Your task to perform on an android device: open sync settings in chrome Image 0: 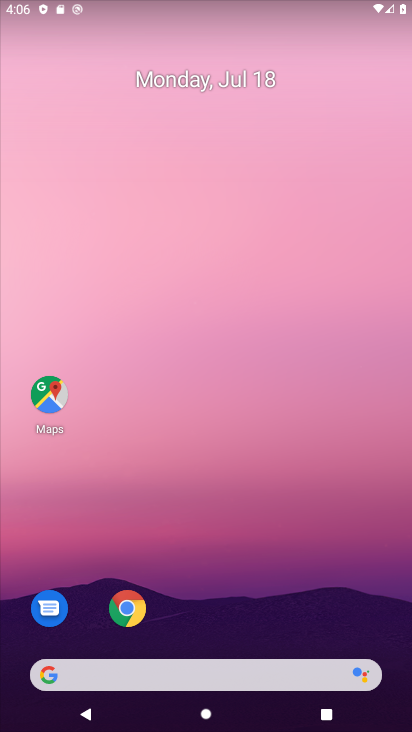
Step 0: drag from (251, 593) to (133, 96)
Your task to perform on an android device: open sync settings in chrome Image 1: 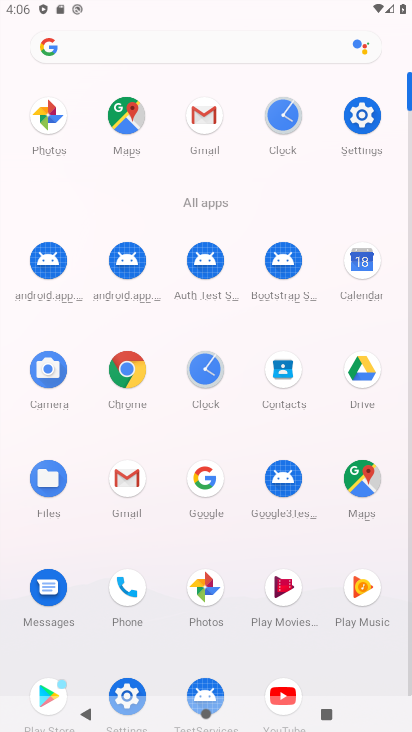
Step 1: click (121, 367)
Your task to perform on an android device: open sync settings in chrome Image 2: 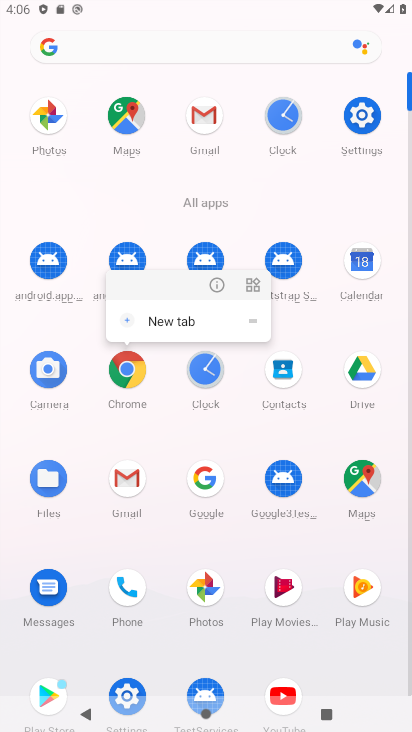
Step 2: click (127, 367)
Your task to perform on an android device: open sync settings in chrome Image 3: 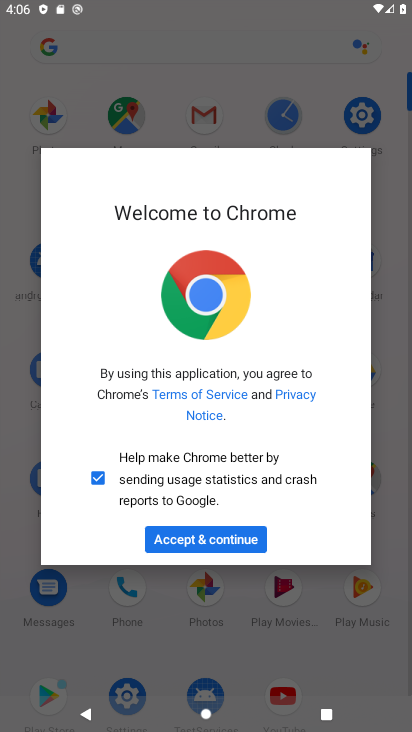
Step 3: click (180, 534)
Your task to perform on an android device: open sync settings in chrome Image 4: 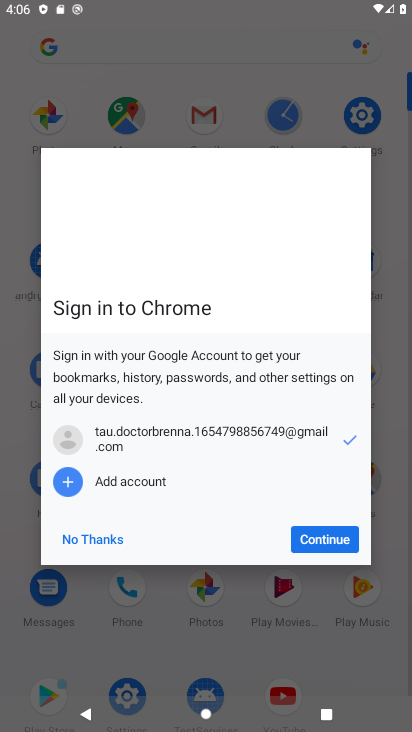
Step 4: click (327, 533)
Your task to perform on an android device: open sync settings in chrome Image 5: 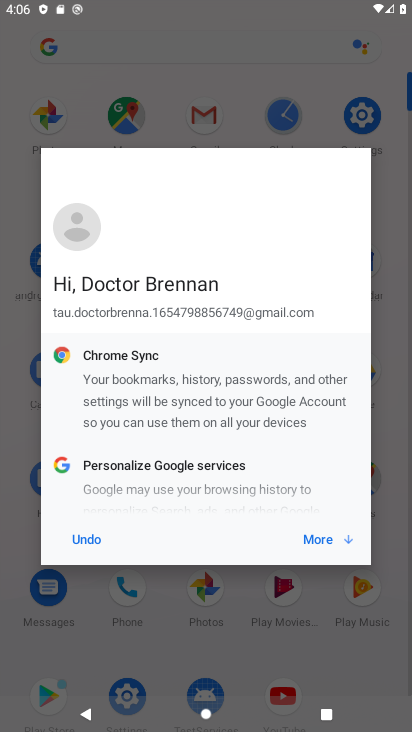
Step 5: click (330, 540)
Your task to perform on an android device: open sync settings in chrome Image 6: 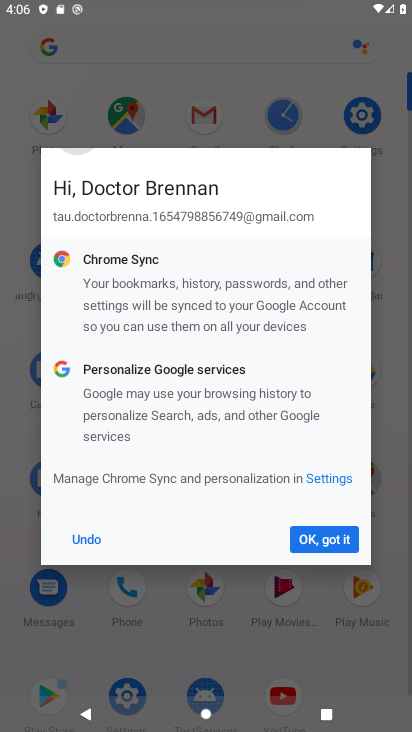
Step 6: click (329, 539)
Your task to perform on an android device: open sync settings in chrome Image 7: 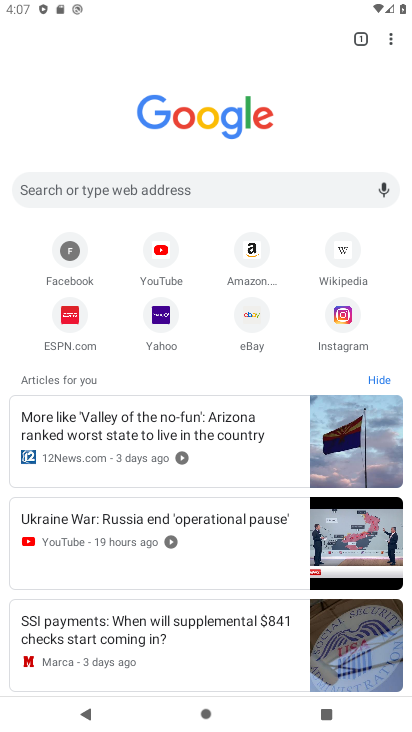
Step 7: drag from (388, 41) to (251, 328)
Your task to perform on an android device: open sync settings in chrome Image 8: 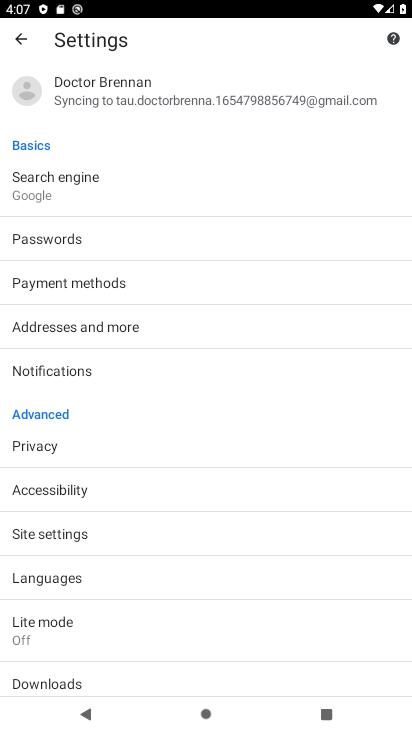
Step 8: click (142, 88)
Your task to perform on an android device: open sync settings in chrome Image 9: 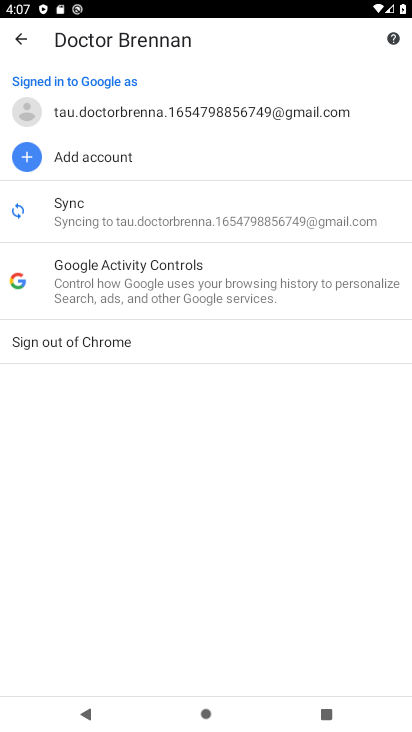
Step 9: click (80, 225)
Your task to perform on an android device: open sync settings in chrome Image 10: 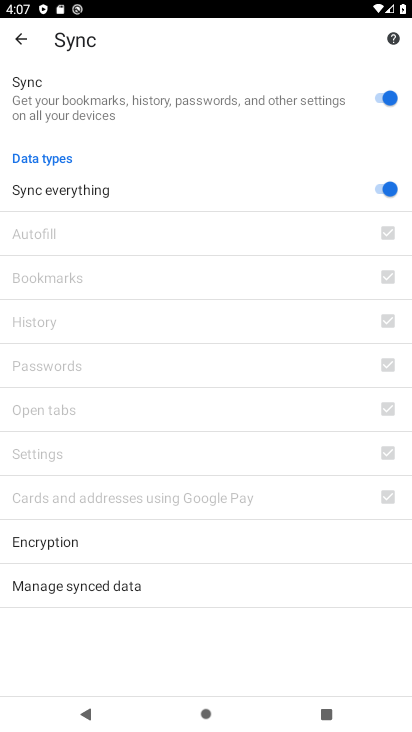
Step 10: task complete